Your task to perform on an android device: Open Android settings Image 0: 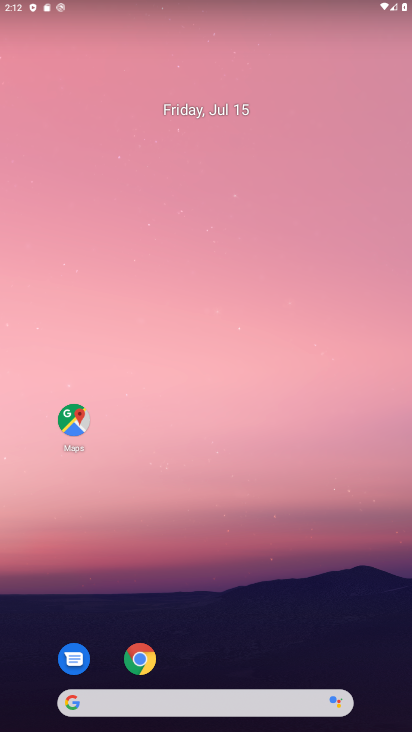
Step 0: drag from (277, 219) to (278, 180)
Your task to perform on an android device: Open Android settings Image 1: 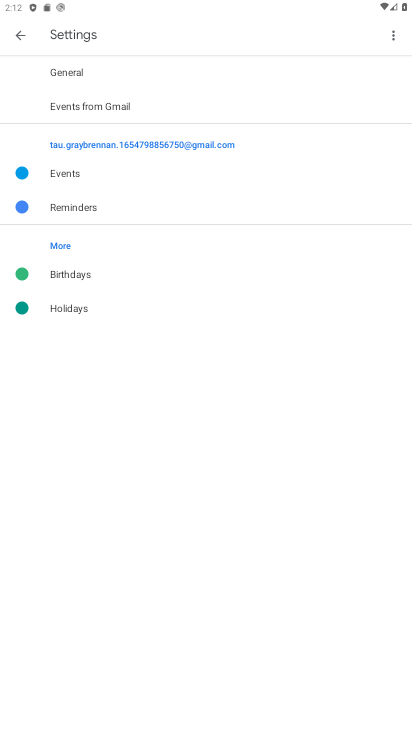
Step 1: click (20, 30)
Your task to perform on an android device: Open Android settings Image 2: 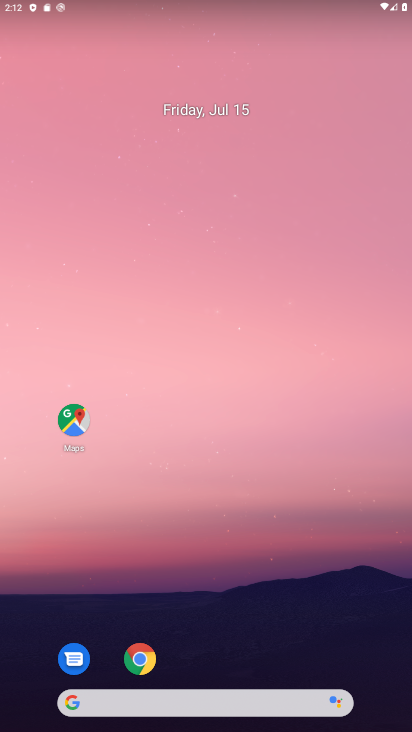
Step 2: click (153, 104)
Your task to perform on an android device: Open Android settings Image 3: 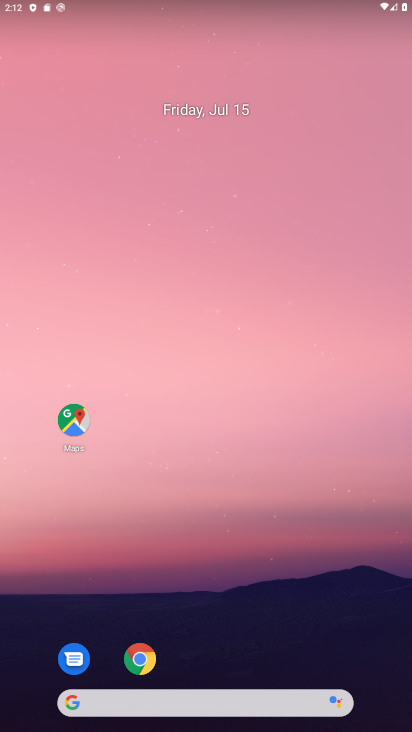
Step 3: drag from (278, 423) to (278, 186)
Your task to perform on an android device: Open Android settings Image 4: 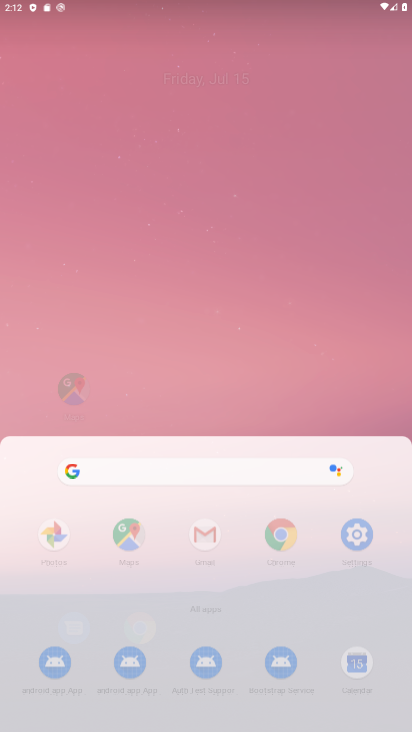
Step 4: drag from (219, 505) to (216, 116)
Your task to perform on an android device: Open Android settings Image 5: 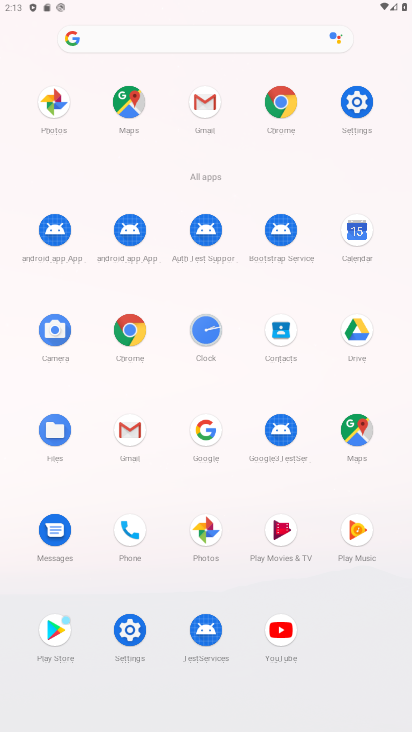
Step 5: click (353, 97)
Your task to perform on an android device: Open Android settings Image 6: 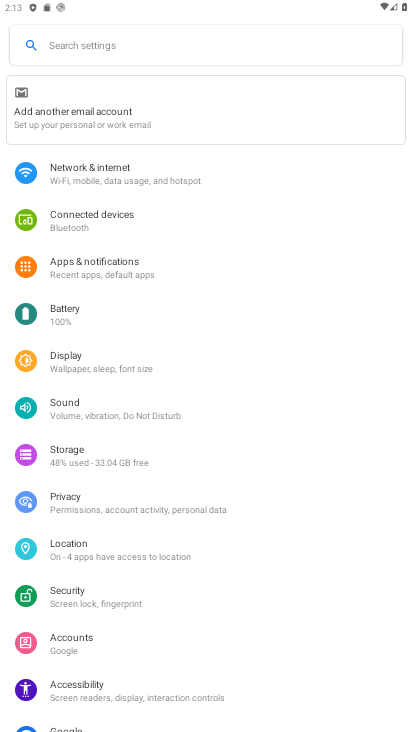
Step 6: drag from (118, 526) to (112, 330)
Your task to perform on an android device: Open Android settings Image 7: 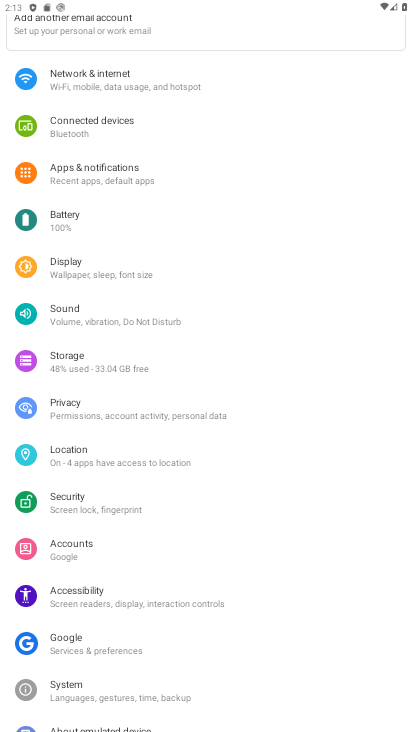
Step 7: drag from (142, 524) to (166, 208)
Your task to perform on an android device: Open Android settings Image 8: 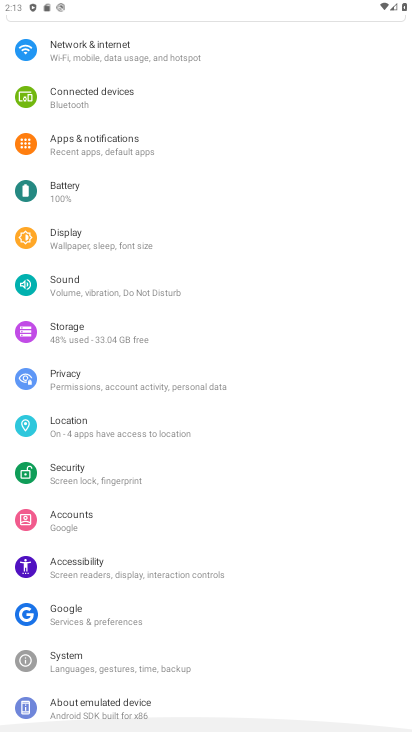
Step 8: drag from (174, 399) to (177, 166)
Your task to perform on an android device: Open Android settings Image 9: 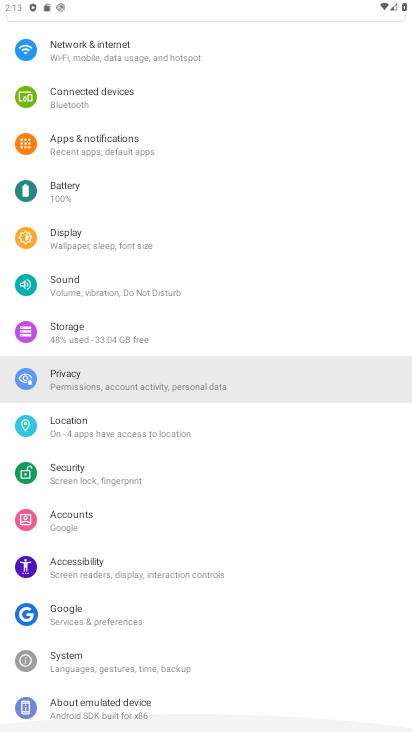
Step 9: drag from (196, 652) to (231, 264)
Your task to perform on an android device: Open Android settings Image 10: 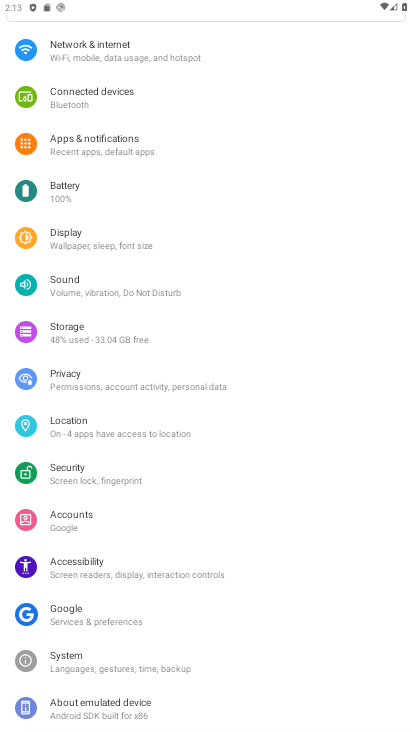
Step 10: click (118, 703)
Your task to perform on an android device: Open Android settings Image 11: 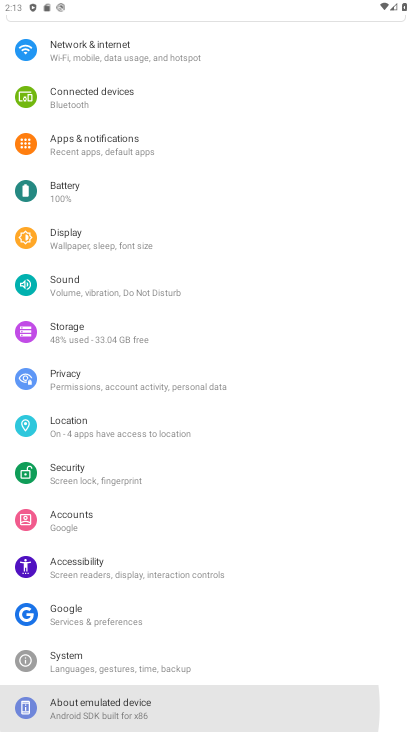
Step 11: click (118, 703)
Your task to perform on an android device: Open Android settings Image 12: 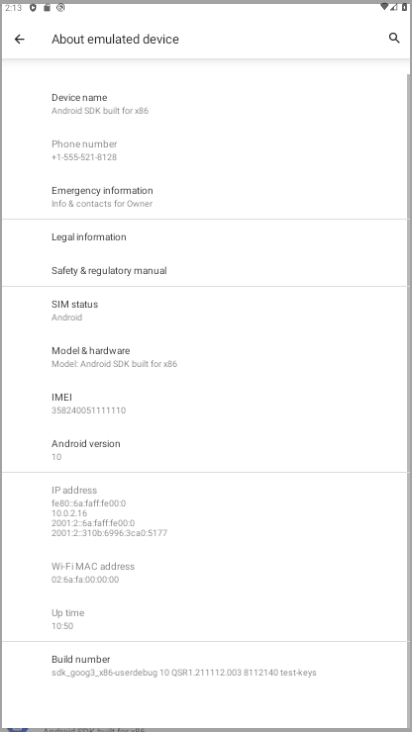
Step 12: click (118, 703)
Your task to perform on an android device: Open Android settings Image 13: 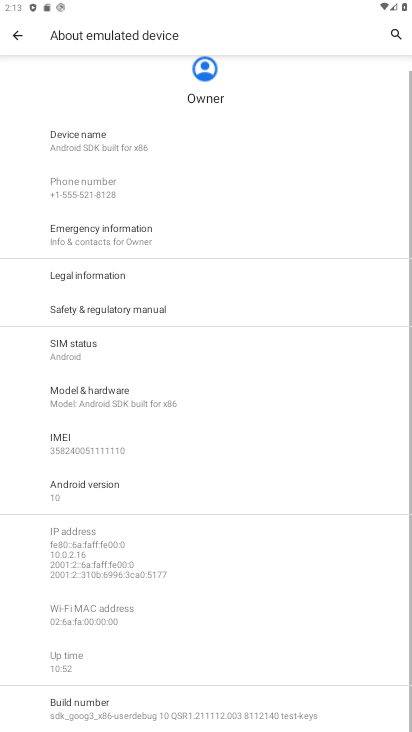
Step 13: task complete